Your task to perform on an android device: Go to Google Image 0: 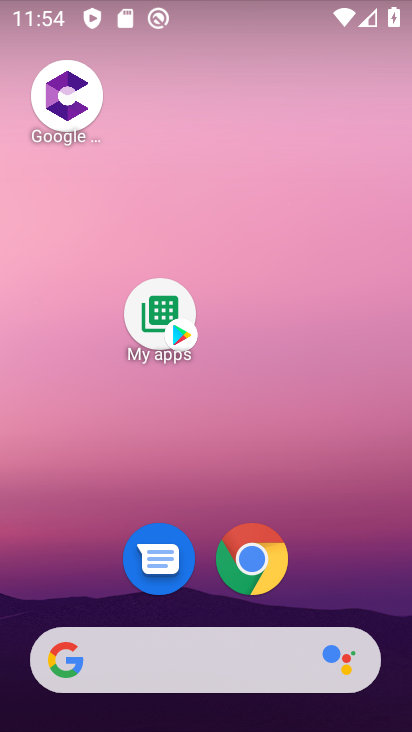
Step 0: drag from (395, 607) to (250, 247)
Your task to perform on an android device: Go to Google Image 1: 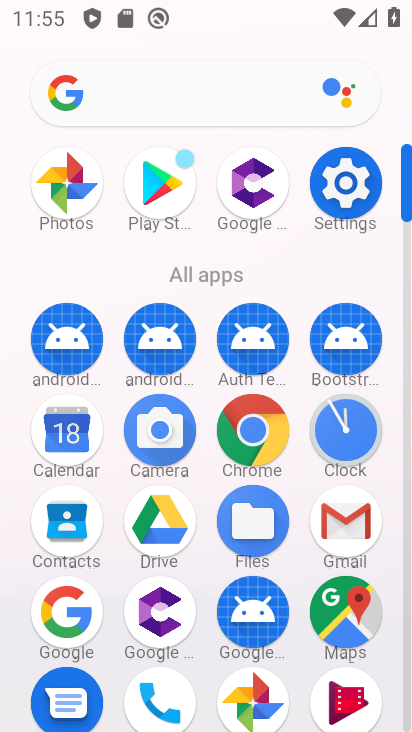
Step 1: click (81, 598)
Your task to perform on an android device: Go to Google Image 2: 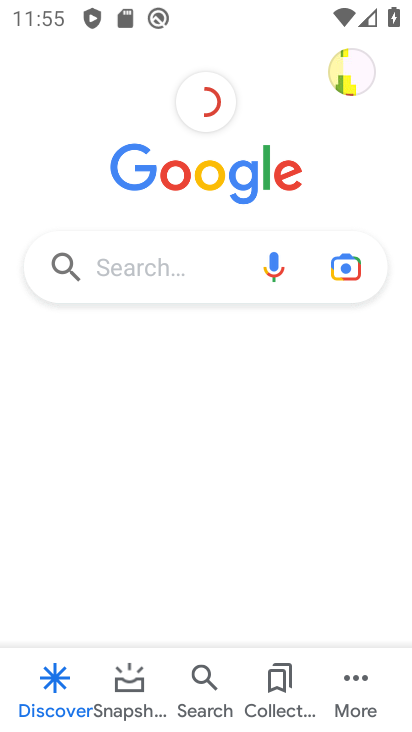
Step 2: task complete